Your task to perform on an android device: Go to notification settings Image 0: 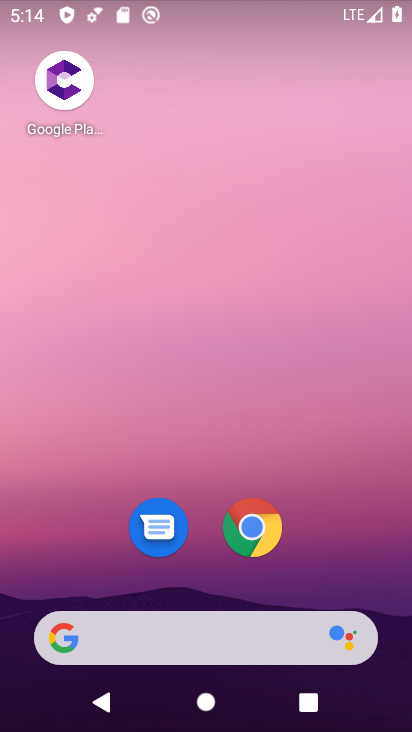
Step 0: drag from (322, 552) to (225, 141)
Your task to perform on an android device: Go to notification settings Image 1: 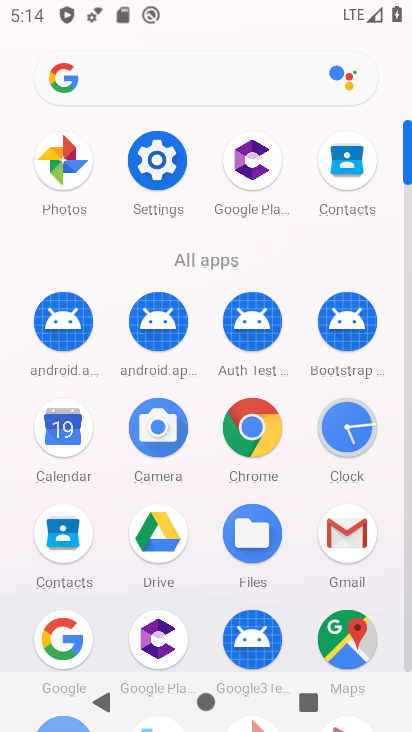
Step 1: click (154, 160)
Your task to perform on an android device: Go to notification settings Image 2: 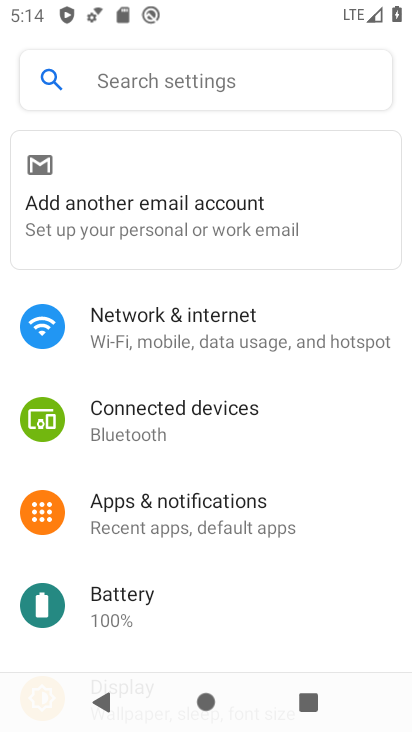
Step 2: click (191, 493)
Your task to perform on an android device: Go to notification settings Image 3: 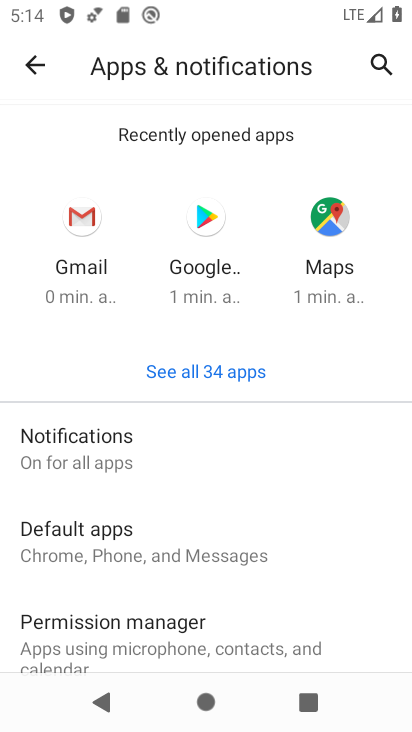
Step 3: click (111, 441)
Your task to perform on an android device: Go to notification settings Image 4: 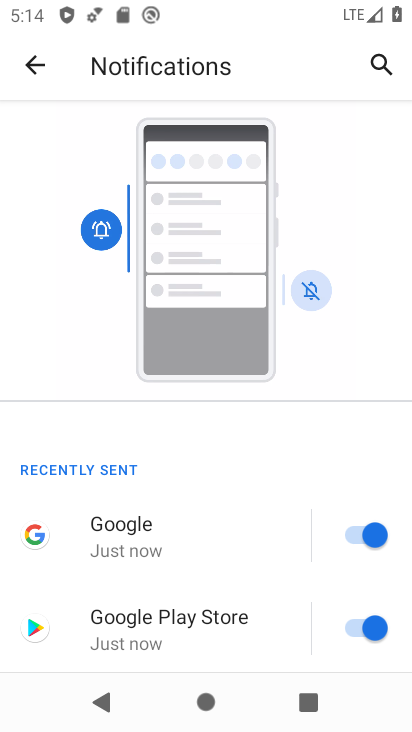
Step 4: task complete